Your task to perform on an android device: Open Google Chrome and click the shortcut for Amazon.com Image 0: 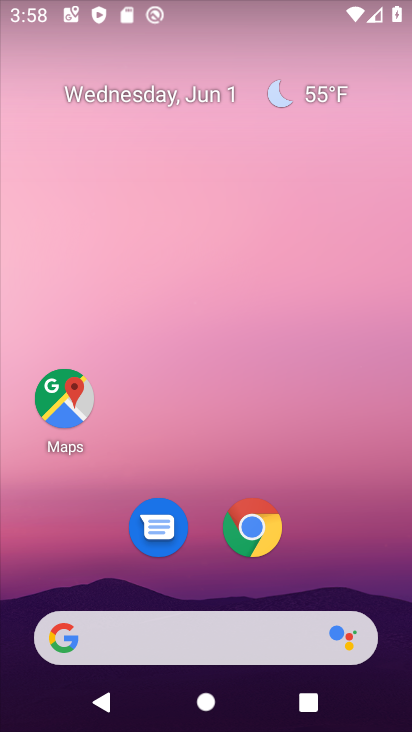
Step 0: click (252, 530)
Your task to perform on an android device: Open Google Chrome and click the shortcut for Amazon.com Image 1: 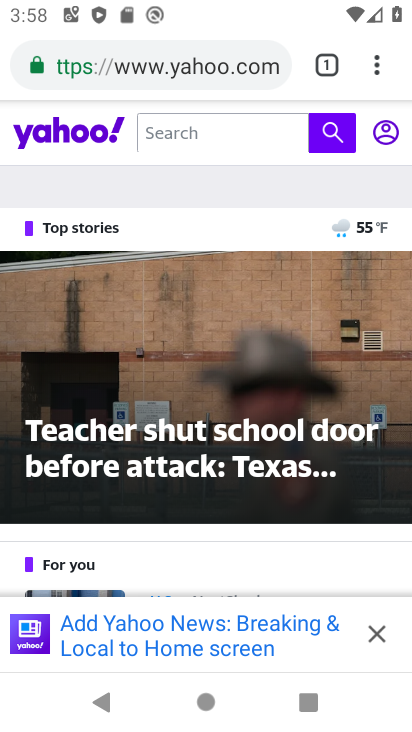
Step 1: drag from (372, 60) to (199, 133)
Your task to perform on an android device: Open Google Chrome and click the shortcut for Amazon.com Image 2: 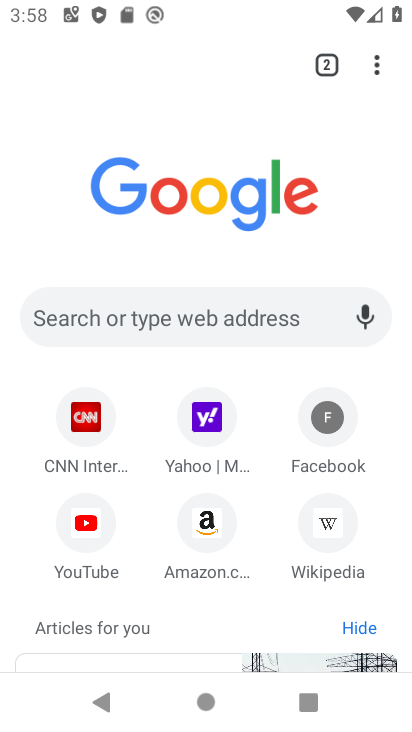
Step 2: click (198, 512)
Your task to perform on an android device: Open Google Chrome and click the shortcut for Amazon.com Image 3: 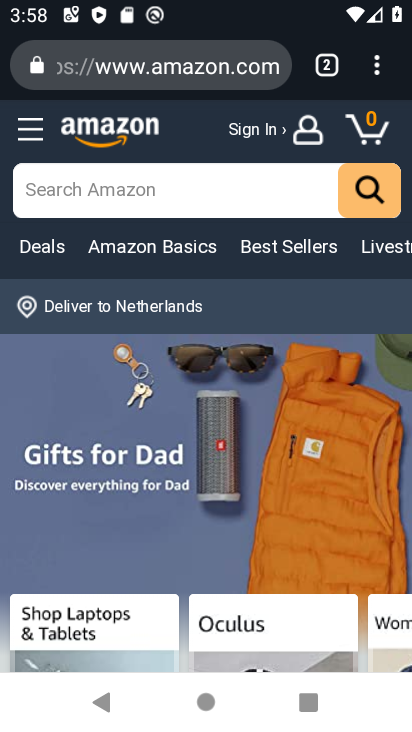
Step 3: task complete